Your task to perform on an android device: open the mobile data screen to see how much data has been used Image 0: 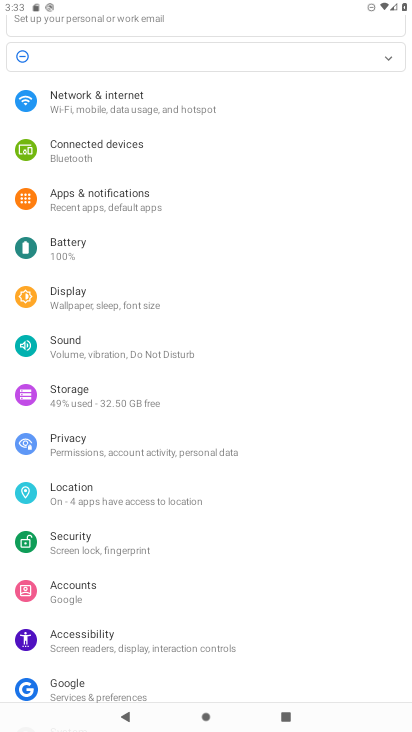
Step 0: click (153, 101)
Your task to perform on an android device: open the mobile data screen to see how much data has been used Image 1: 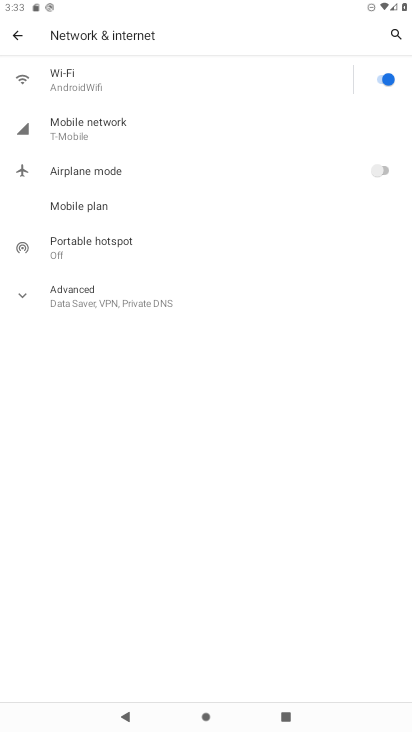
Step 1: click (146, 129)
Your task to perform on an android device: open the mobile data screen to see how much data has been used Image 2: 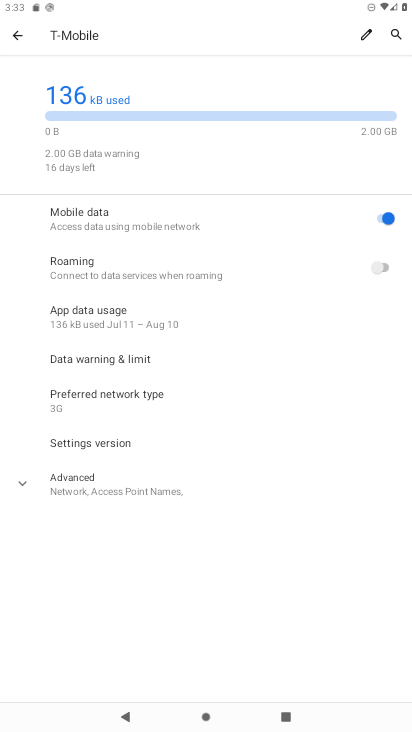
Step 2: click (81, 310)
Your task to perform on an android device: open the mobile data screen to see how much data has been used Image 3: 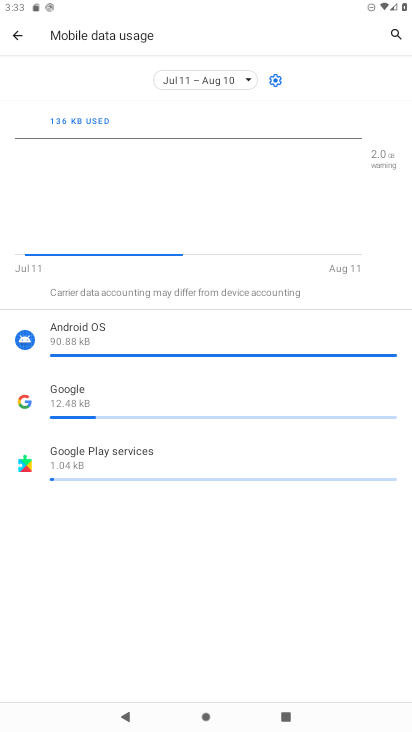
Step 3: task complete